Your task to perform on an android device: change the upload size in google photos Image 0: 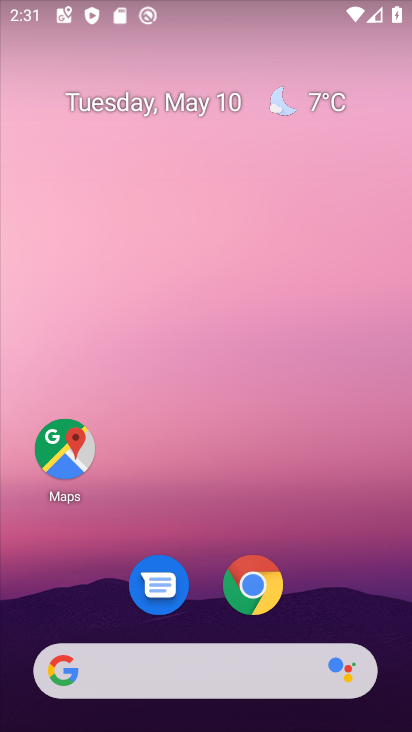
Step 0: drag from (245, 502) to (236, 39)
Your task to perform on an android device: change the upload size in google photos Image 1: 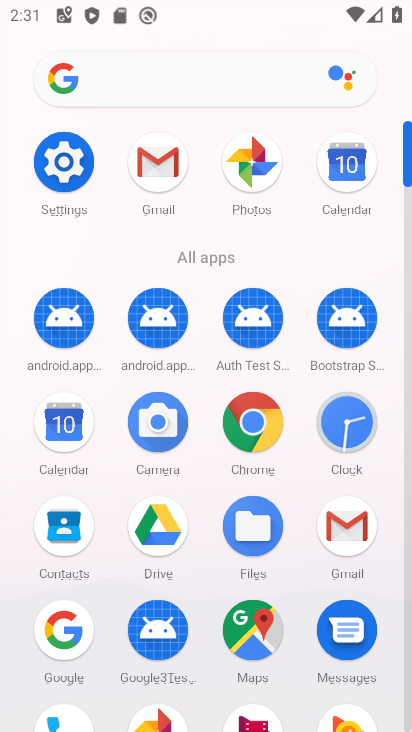
Step 1: click (246, 165)
Your task to perform on an android device: change the upload size in google photos Image 2: 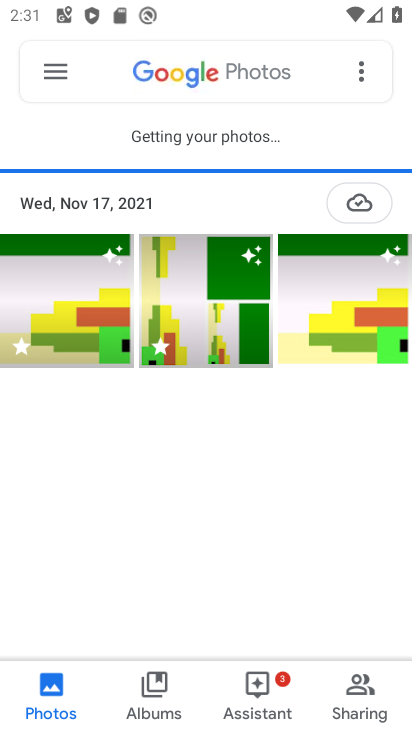
Step 2: click (59, 75)
Your task to perform on an android device: change the upload size in google photos Image 3: 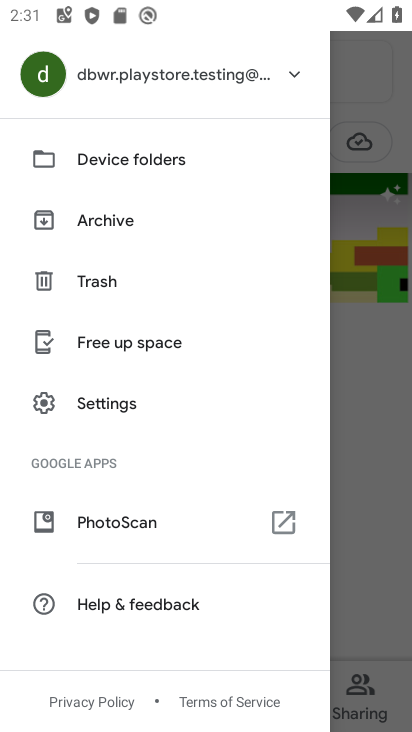
Step 3: click (133, 398)
Your task to perform on an android device: change the upload size in google photos Image 4: 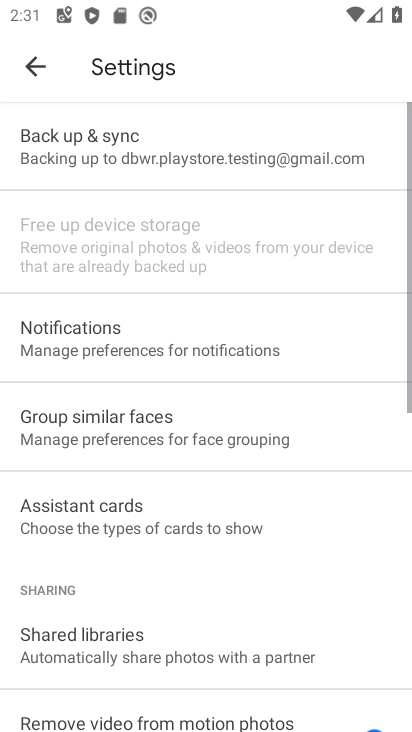
Step 4: click (168, 139)
Your task to perform on an android device: change the upload size in google photos Image 5: 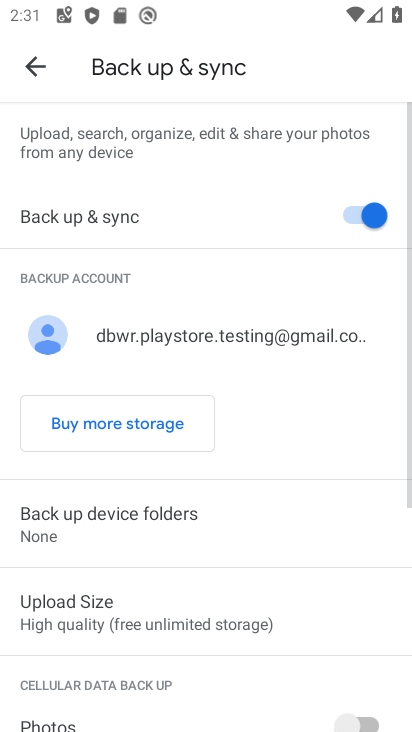
Step 5: click (207, 626)
Your task to perform on an android device: change the upload size in google photos Image 6: 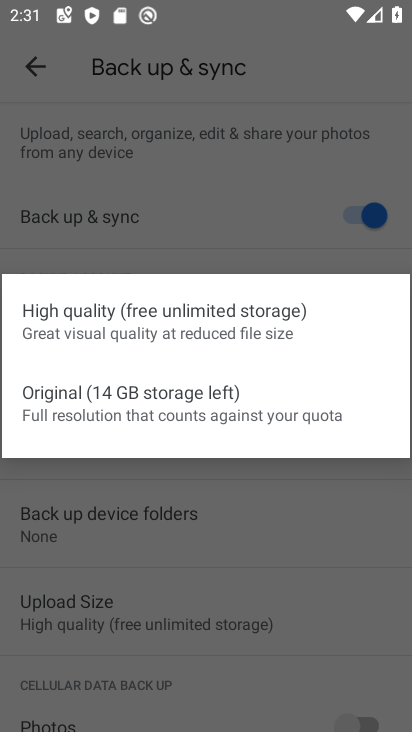
Step 6: click (176, 411)
Your task to perform on an android device: change the upload size in google photos Image 7: 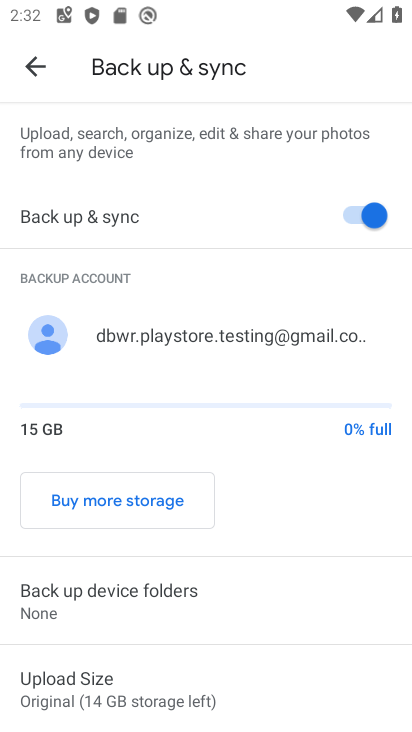
Step 7: task complete